Your task to perform on an android device: open app "Mercado Libre" Image 0: 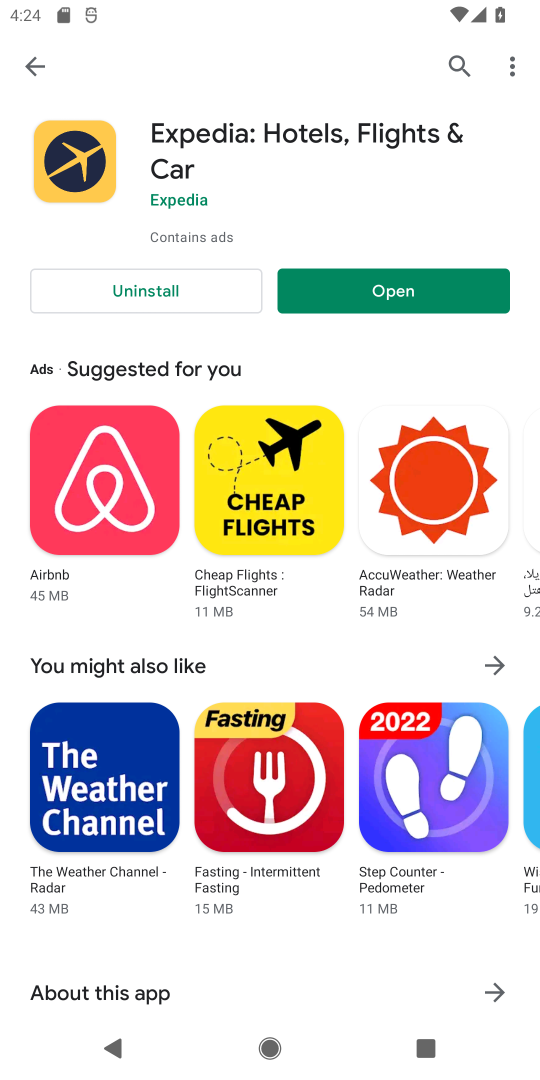
Step 0: click (423, 70)
Your task to perform on an android device: open app "Mercado Libre" Image 1: 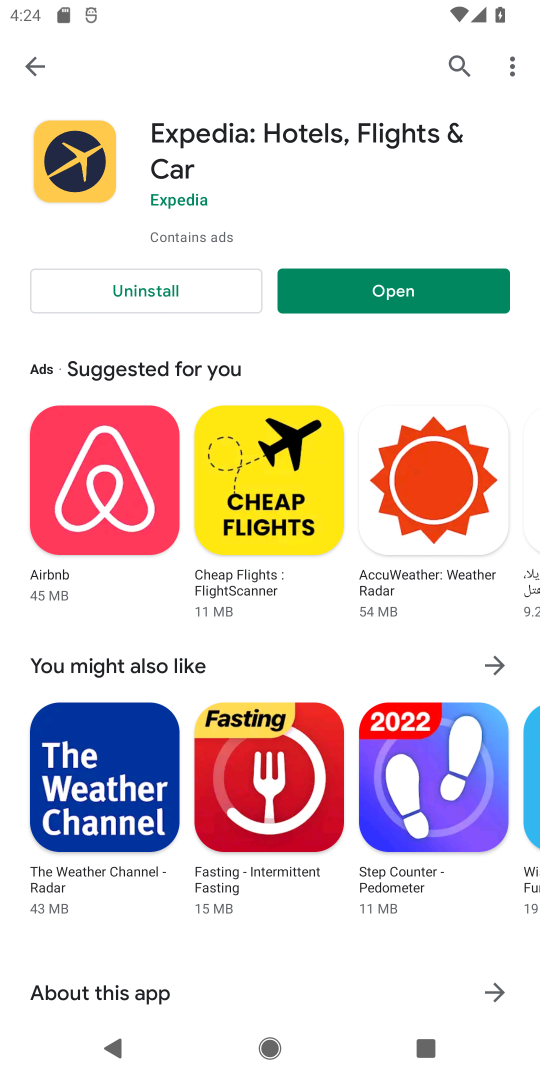
Step 1: click (464, 71)
Your task to perform on an android device: open app "Mercado Libre" Image 2: 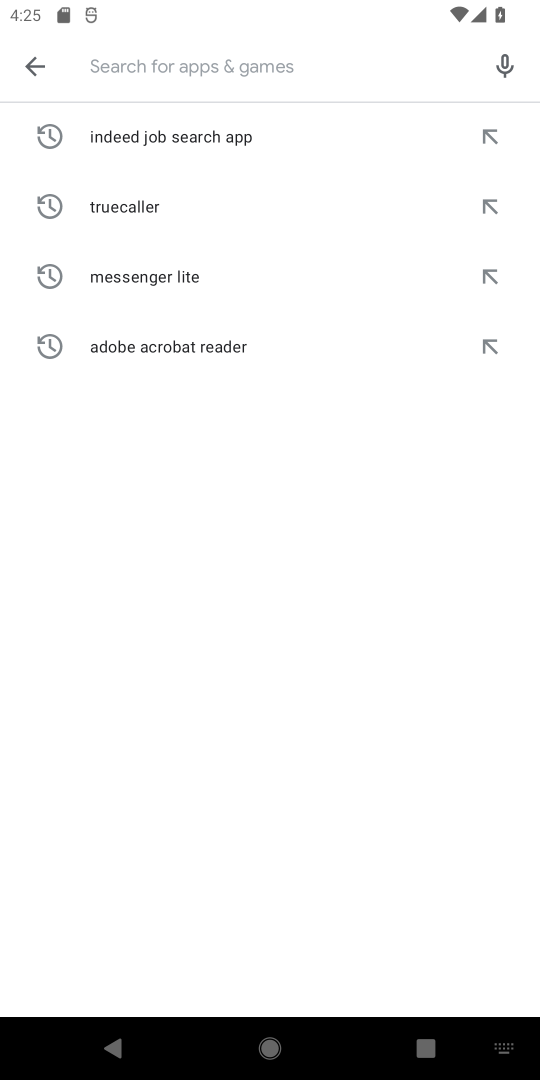
Step 2: click (270, 50)
Your task to perform on an android device: open app "Mercado Libre" Image 3: 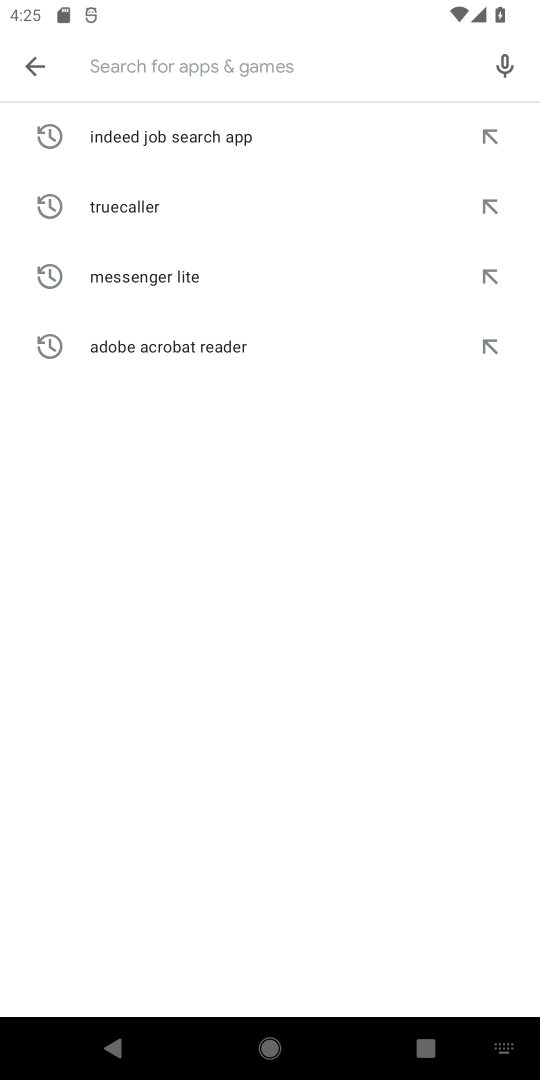
Step 3: type "Mercado Libre"
Your task to perform on an android device: open app "Mercado Libre" Image 4: 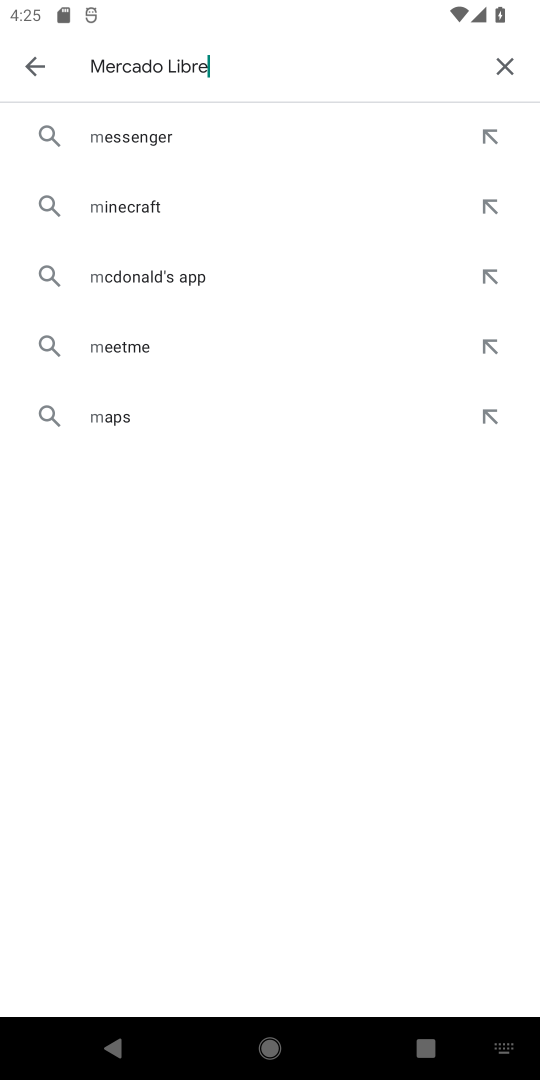
Step 4: type ""
Your task to perform on an android device: open app "Mercado Libre" Image 5: 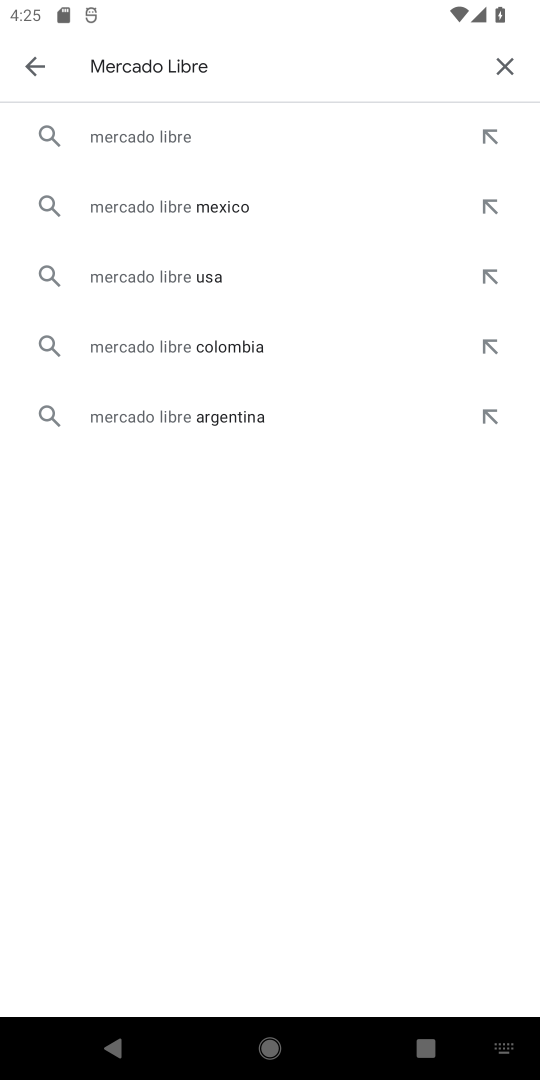
Step 5: click (181, 147)
Your task to perform on an android device: open app "Mercado Libre" Image 6: 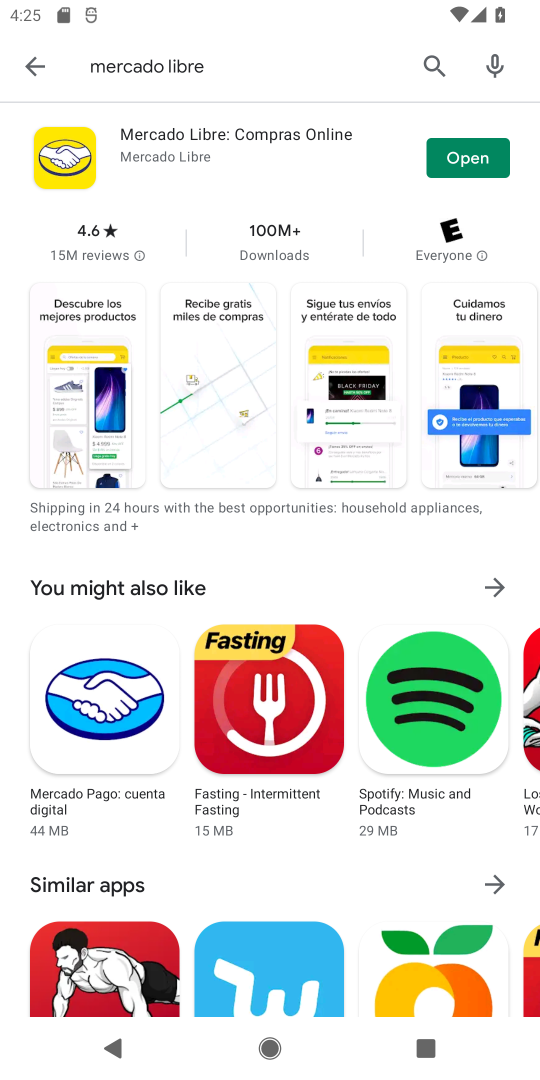
Step 6: click (476, 160)
Your task to perform on an android device: open app "Mercado Libre" Image 7: 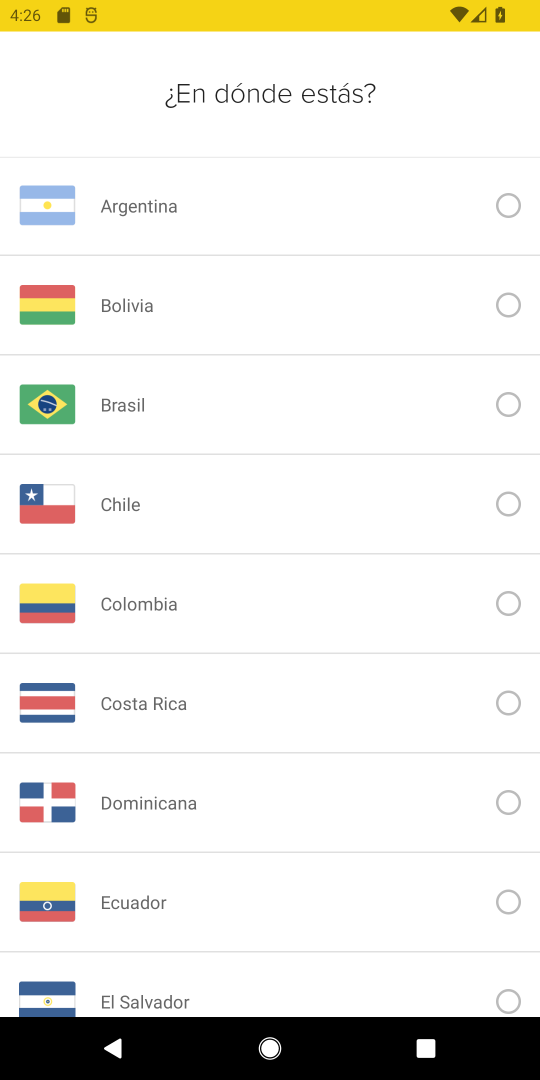
Step 7: task complete